Your task to perform on an android device: Clear the shopping cart on target. Add razer naga to the cart on target Image 0: 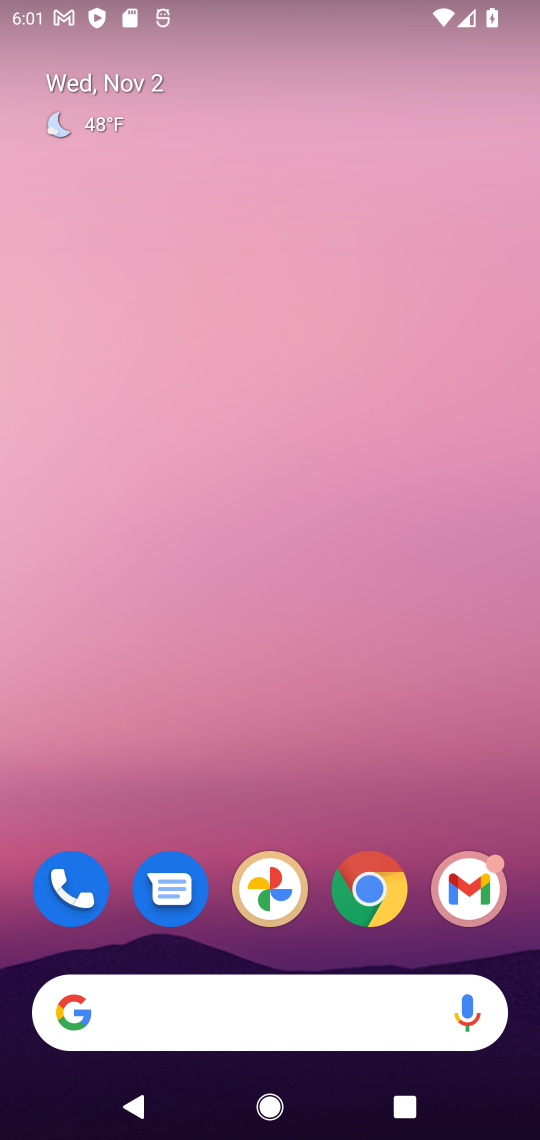
Step 0: click (376, 896)
Your task to perform on an android device: Clear the shopping cart on target. Add razer naga to the cart on target Image 1: 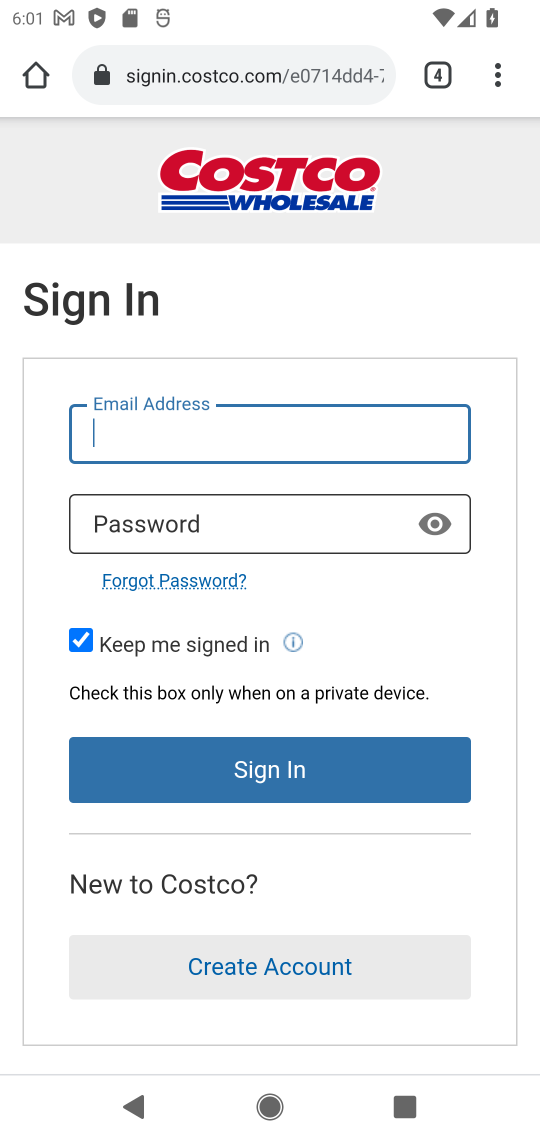
Step 1: click (232, 63)
Your task to perform on an android device: Clear the shopping cart on target. Add razer naga to the cart on target Image 2: 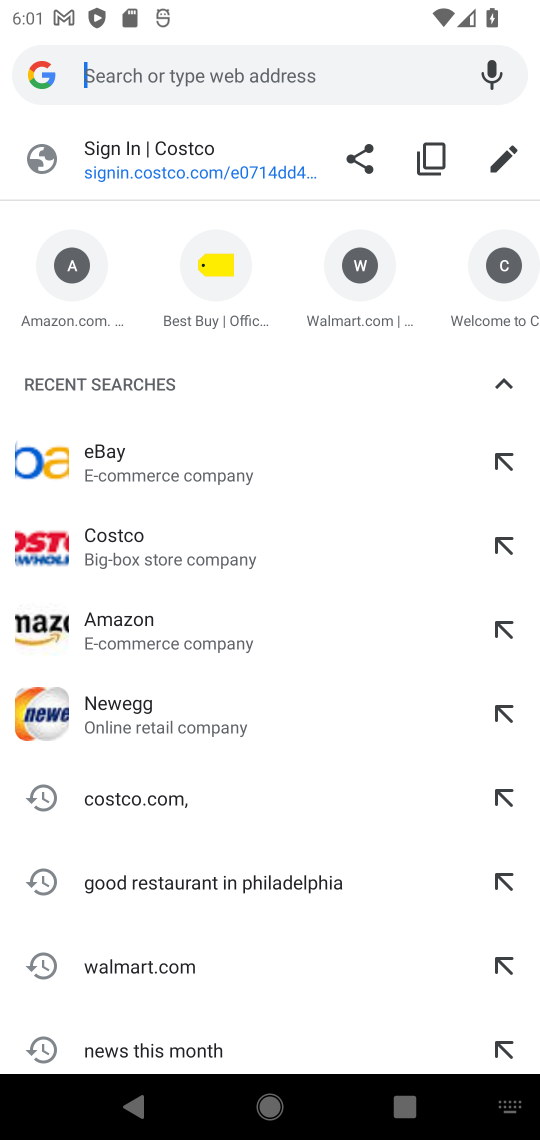
Step 2: drag from (169, 836) to (243, 846)
Your task to perform on an android device: Clear the shopping cart on target. Add razer naga to the cart on target Image 3: 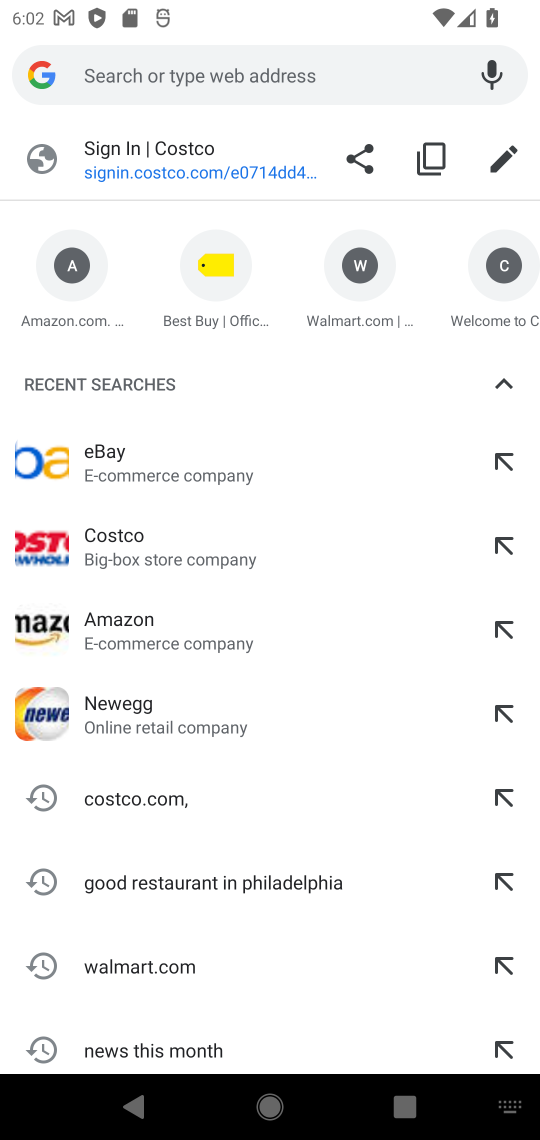
Step 3: drag from (432, 305) to (54, 310)
Your task to perform on an android device: Clear the shopping cart on target. Add razer naga to the cart on target Image 4: 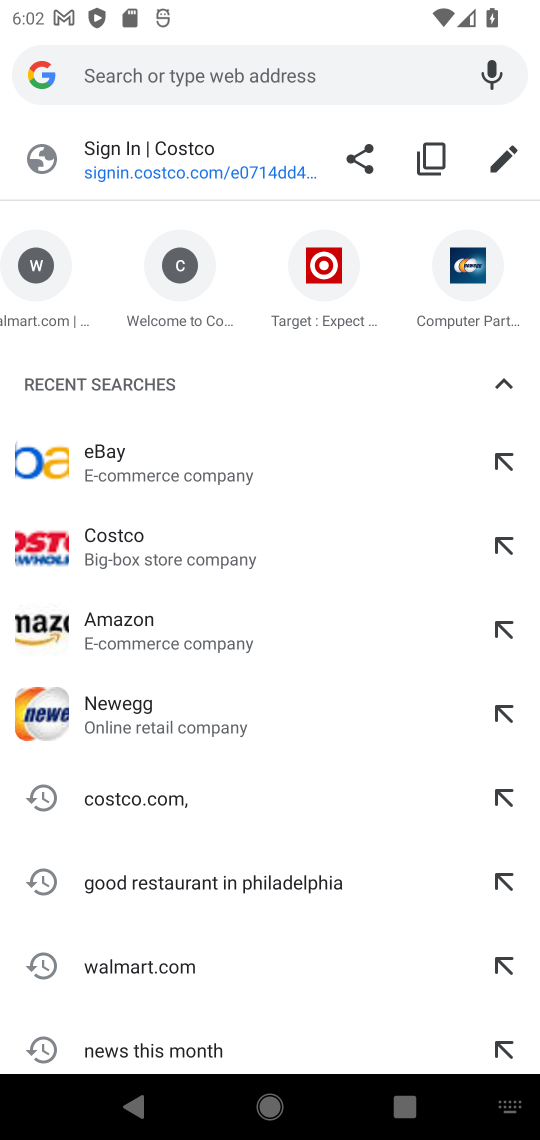
Step 4: click (317, 299)
Your task to perform on an android device: Clear the shopping cart on target. Add razer naga to the cart on target Image 5: 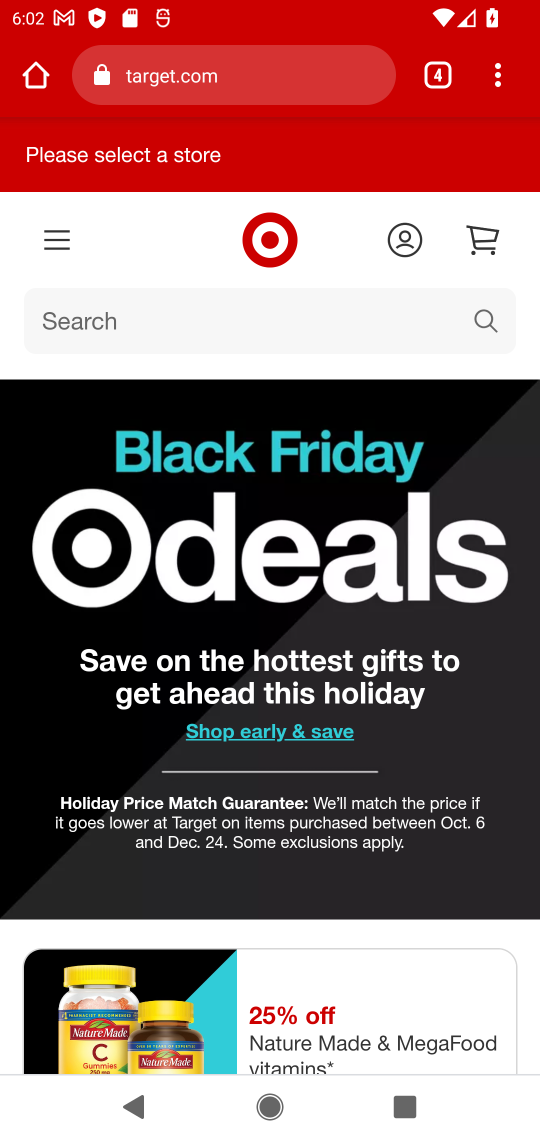
Step 5: click (165, 307)
Your task to perform on an android device: Clear the shopping cart on target. Add razer naga to the cart on target Image 6: 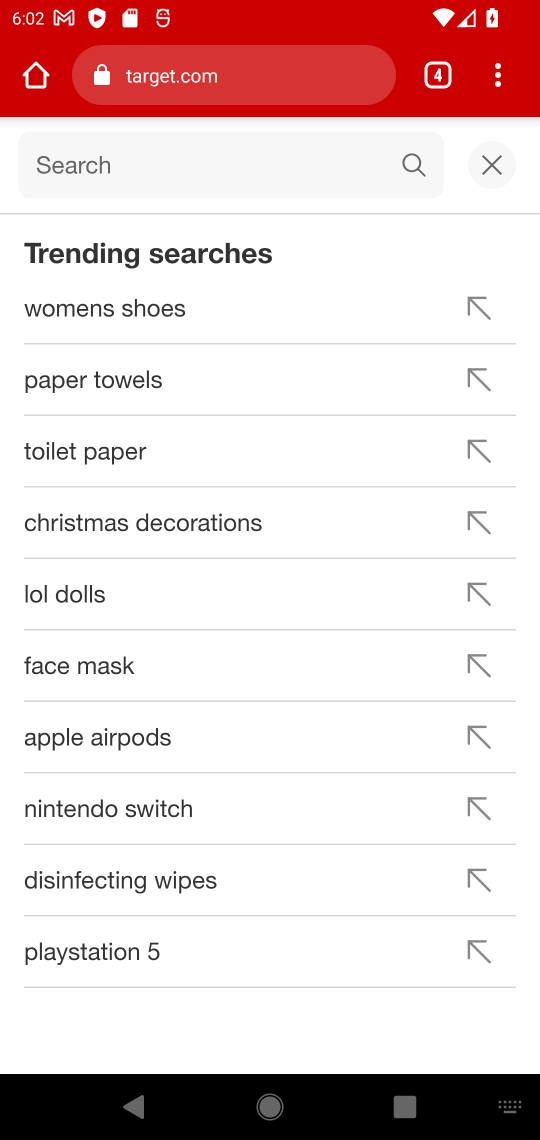
Step 6: type "razer naga"
Your task to perform on an android device: Clear the shopping cart on target. Add razer naga to the cart on target Image 7: 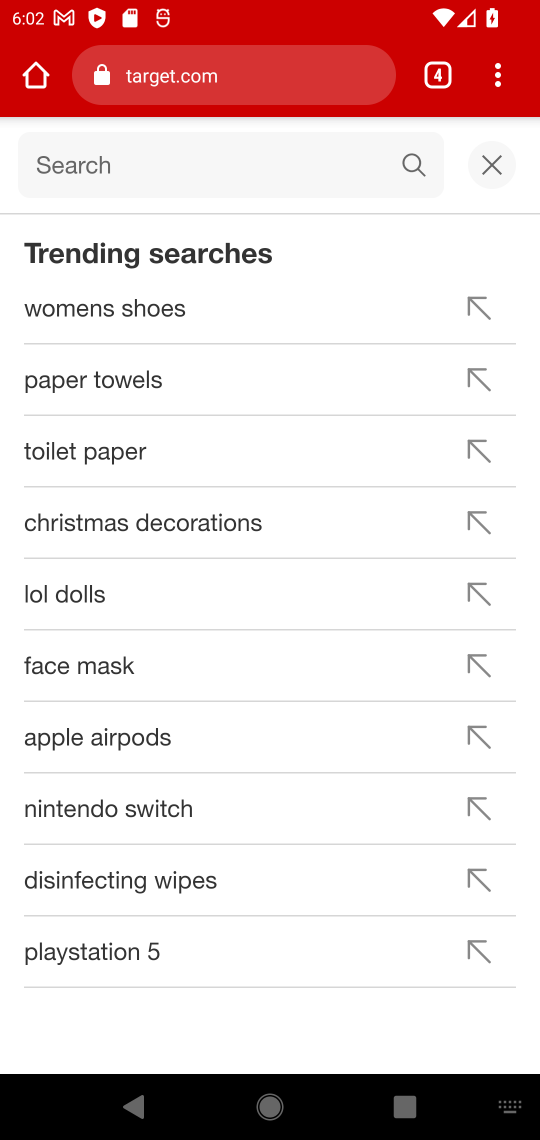
Step 7: press enter
Your task to perform on an android device: Clear the shopping cart on target. Add razer naga to the cart on target Image 8: 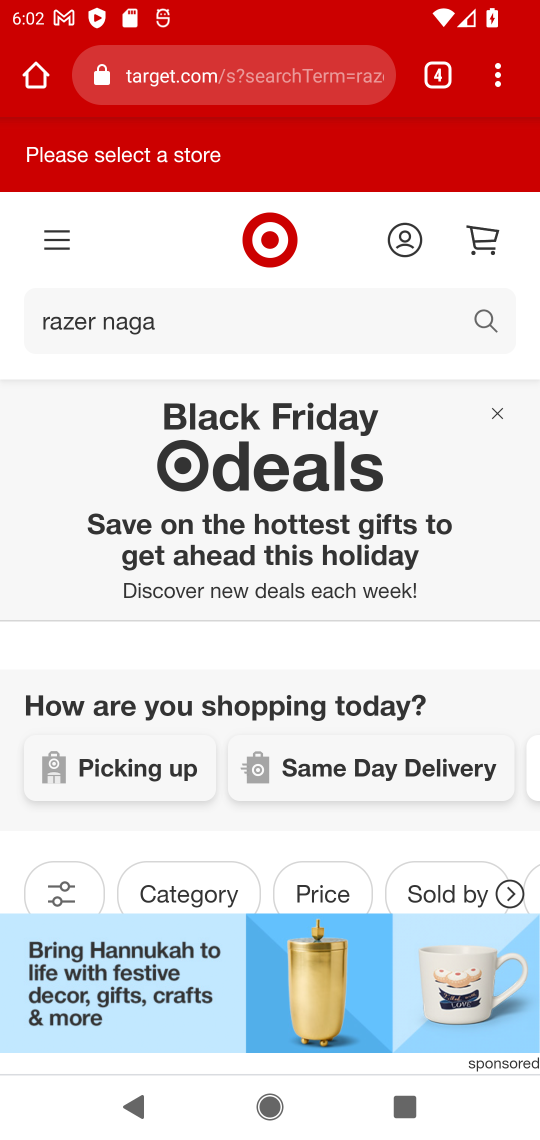
Step 8: task complete